Your task to perform on an android device: open app "ZOOM Cloud Meetings" (install if not already installed), go to login, and select forgot password Image 0: 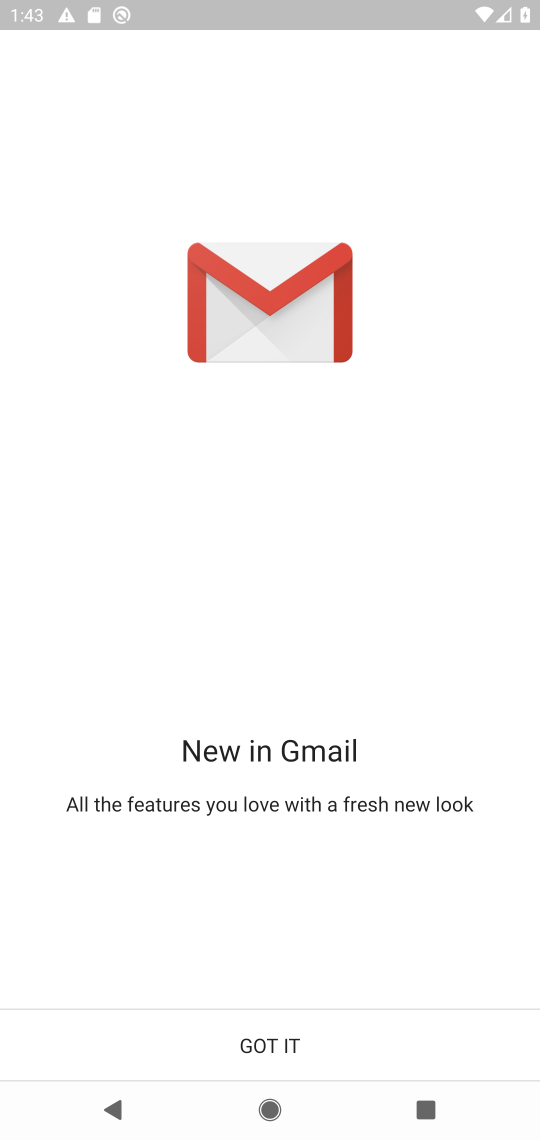
Step 0: press home button
Your task to perform on an android device: open app "ZOOM Cloud Meetings" (install if not already installed), go to login, and select forgot password Image 1: 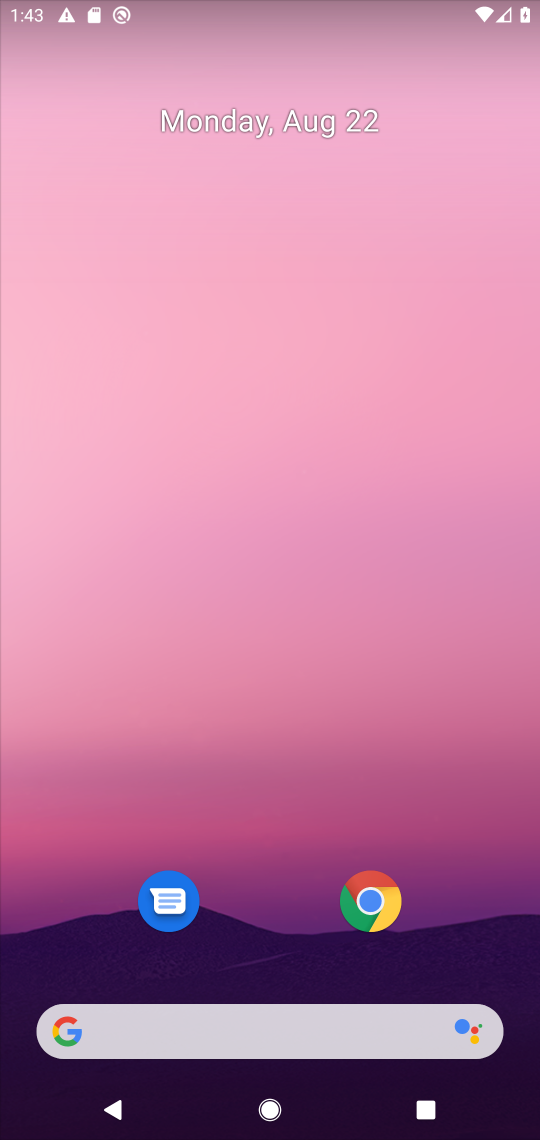
Step 1: drag from (461, 568) to (444, 173)
Your task to perform on an android device: open app "ZOOM Cloud Meetings" (install if not already installed), go to login, and select forgot password Image 2: 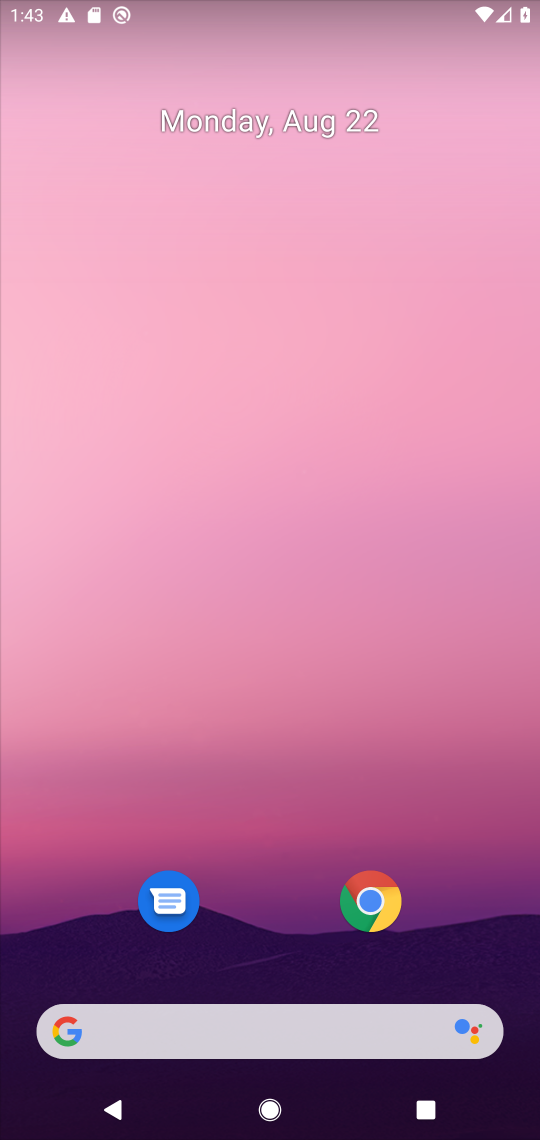
Step 2: drag from (512, 974) to (475, 70)
Your task to perform on an android device: open app "ZOOM Cloud Meetings" (install if not already installed), go to login, and select forgot password Image 3: 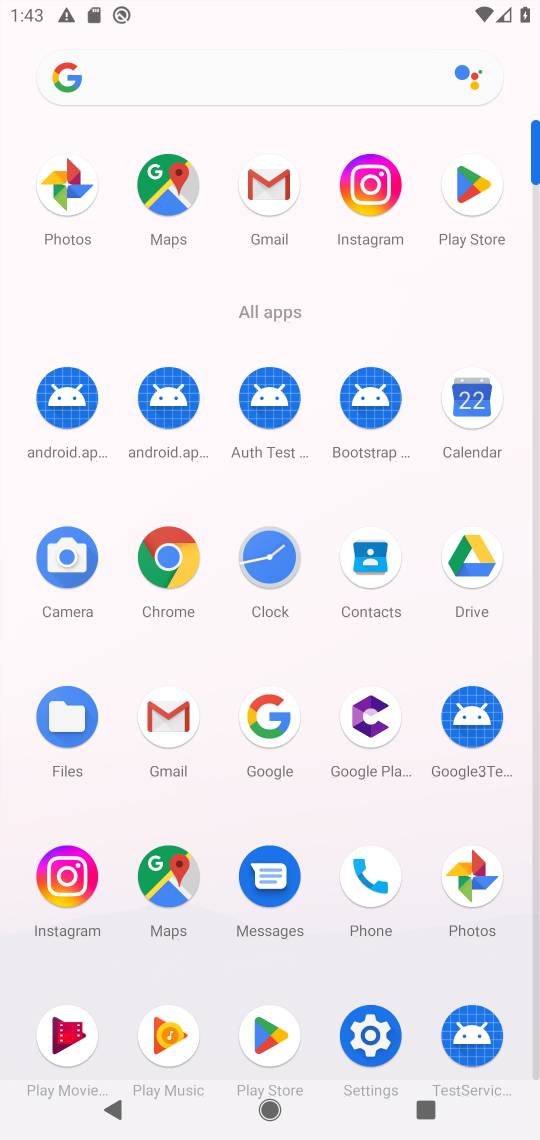
Step 3: click (275, 1028)
Your task to perform on an android device: open app "ZOOM Cloud Meetings" (install if not already installed), go to login, and select forgot password Image 4: 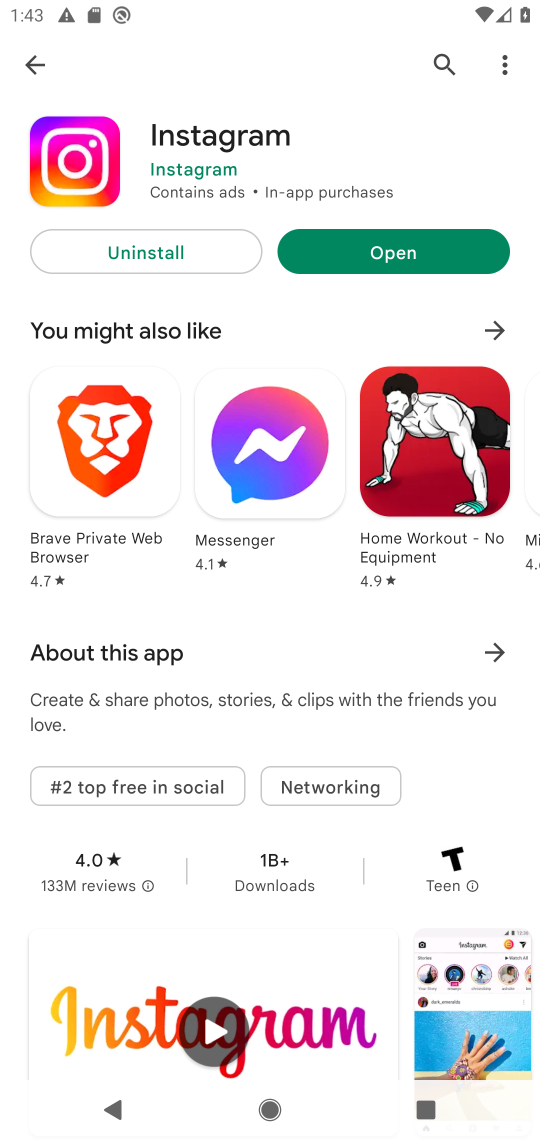
Step 4: click (437, 67)
Your task to perform on an android device: open app "ZOOM Cloud Meetings" (install if not already installed), go to login, and select forgot password Image 5: 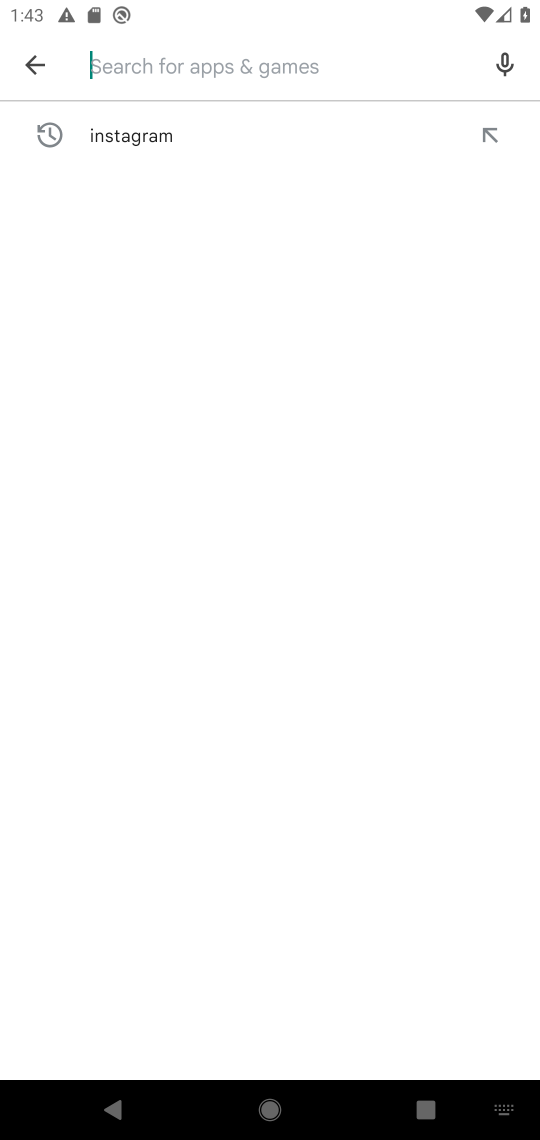
Step 5: type "ZOOM Cloud Meetings"
Your task to perform on an android device: open app "ZOOM Cloud Meetings" (install if not already installed), go to login, and select forgot password Image 6: 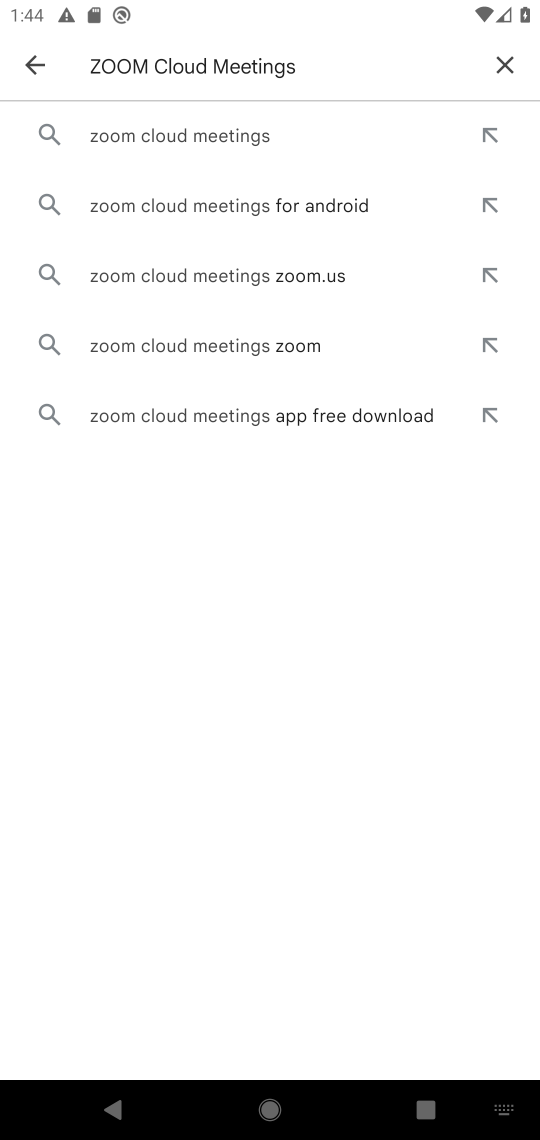
Step 6: click (172, 128)
Your task to perform on an android device: open app "ZOOM Cloud Meetings" (install if not already installed), go to login, and select forgot password Image 7: 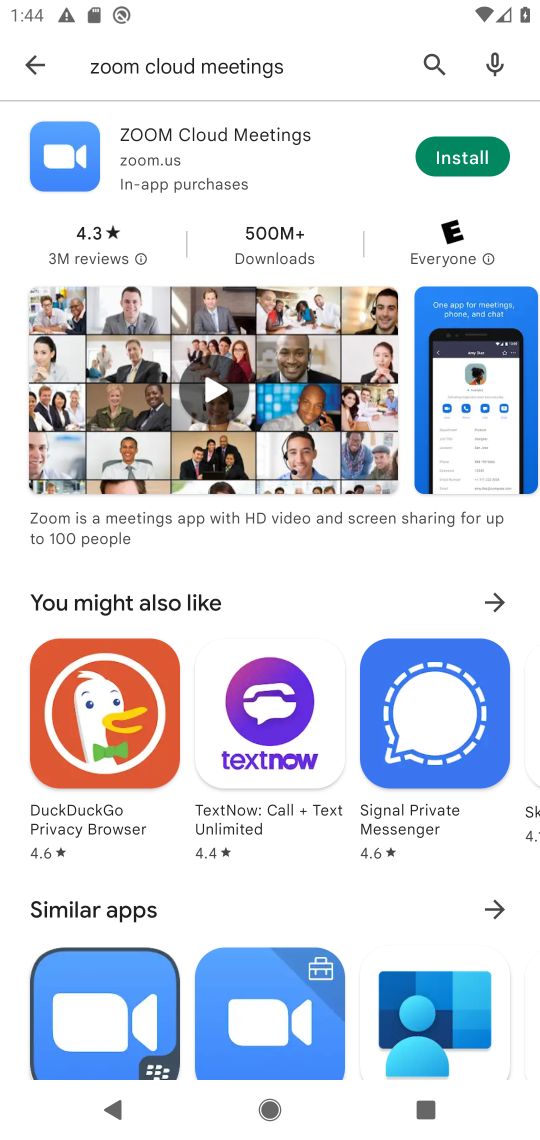
Step 7: click (144, 147)
Your task to perform on an android device: open app "ZOOM Cloud Meetings" (install if not already installed), go to login, and select forgot password Image 8: 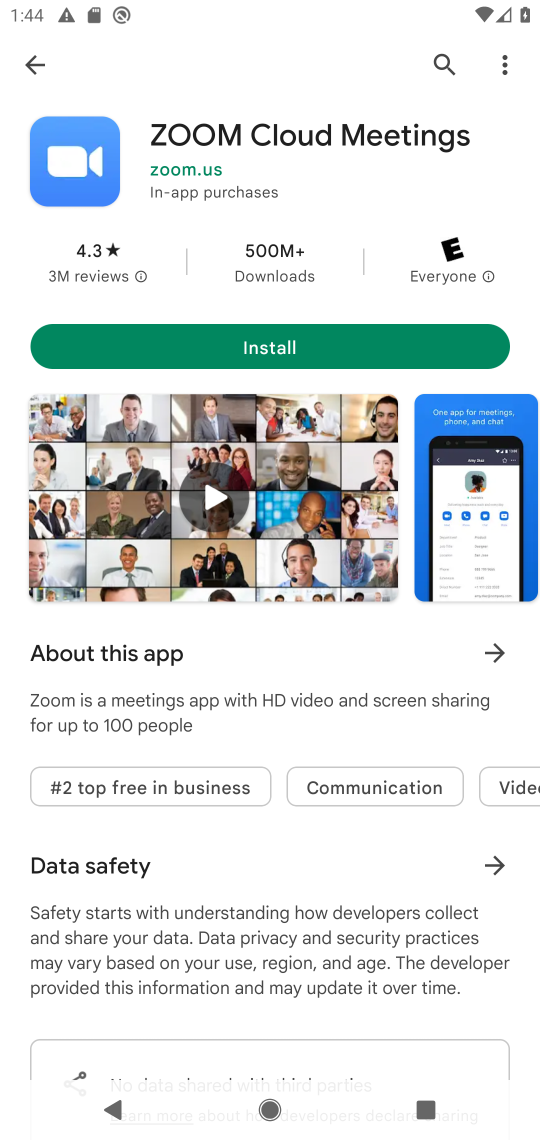
Step 8: click (266, 361)
Your task to perform on an android device: open app "ZOOM Cloud Meetings" (install if not already installed), go to login, and select forgot password Image 9: 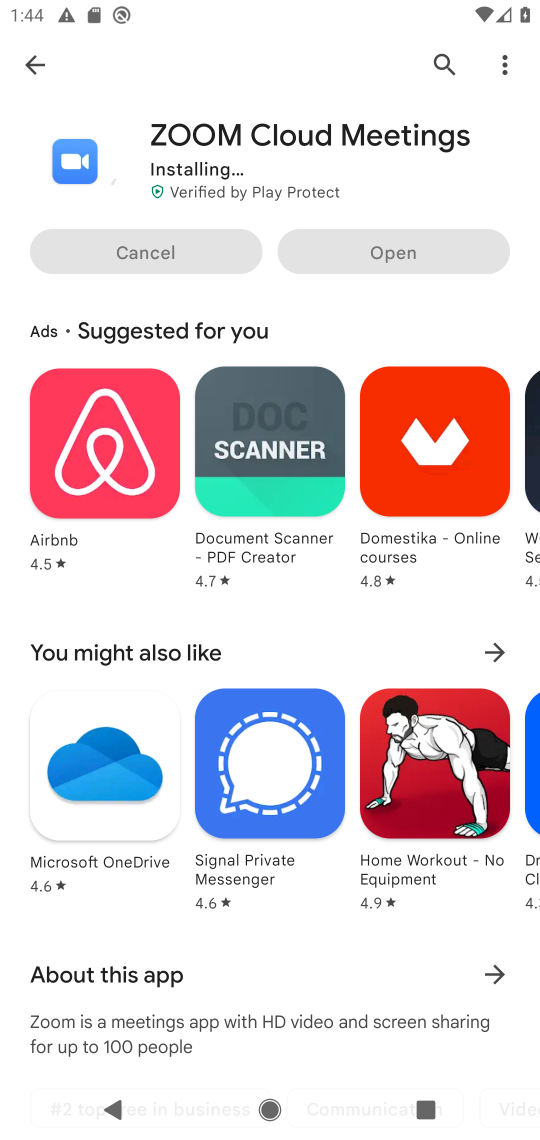
Step 9: click (275, 270)
Your task to perform on an android device: open app "ZOOM Cloud Meetings" (install if not already installed), go to login, and select forgot password Image 10: 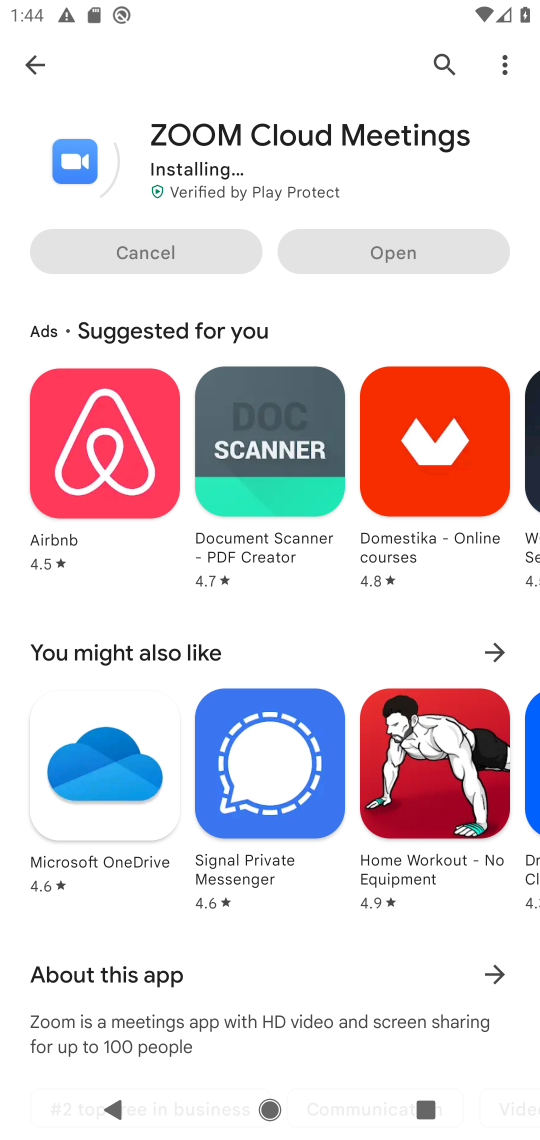
Step 10: drag from (264, 179) to (264, 275)
Your task to perform on an android device: open app "ZOOM Cloud Meetings" (install if not already installed), go to login, and select forgot password Image 11: 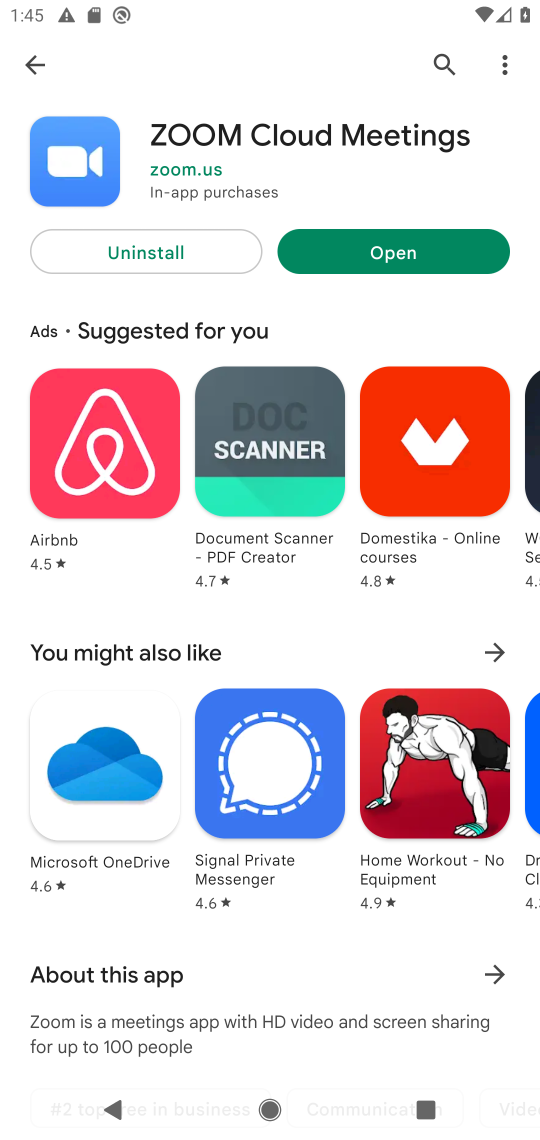
Step 11: click (383, 258)
Your task to perform on an android device: open app "ZOOM Cloud Meetings" (install if not already installed), go to login, and select forgot password Image 12: 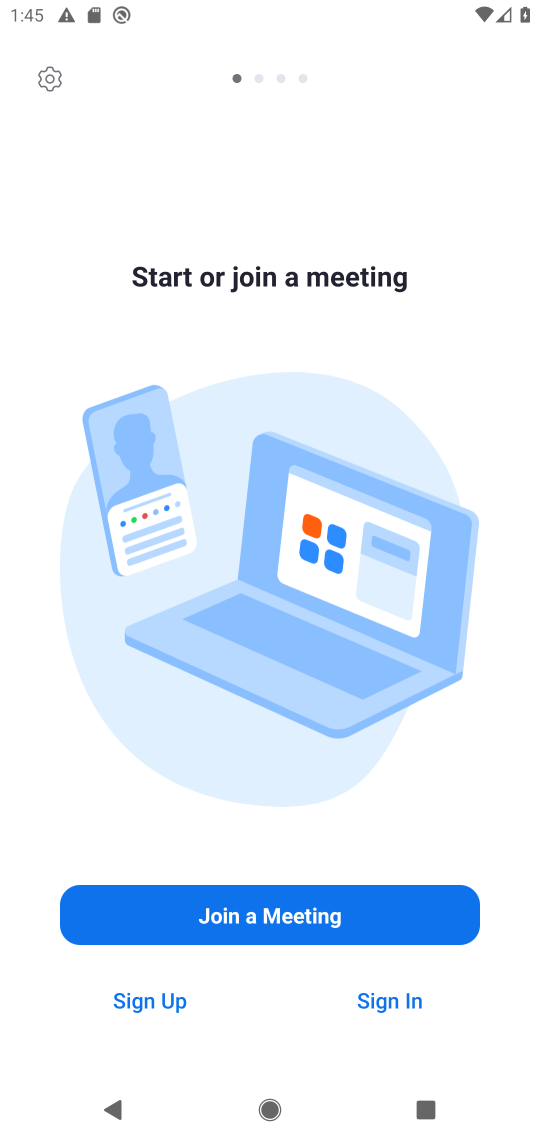
Step 12: click (400, 1010)
Your task to perform on an android device: open app "ZOOM Cloud Meetings" (install if not already installed), go to login, and select forgot password Image 13: 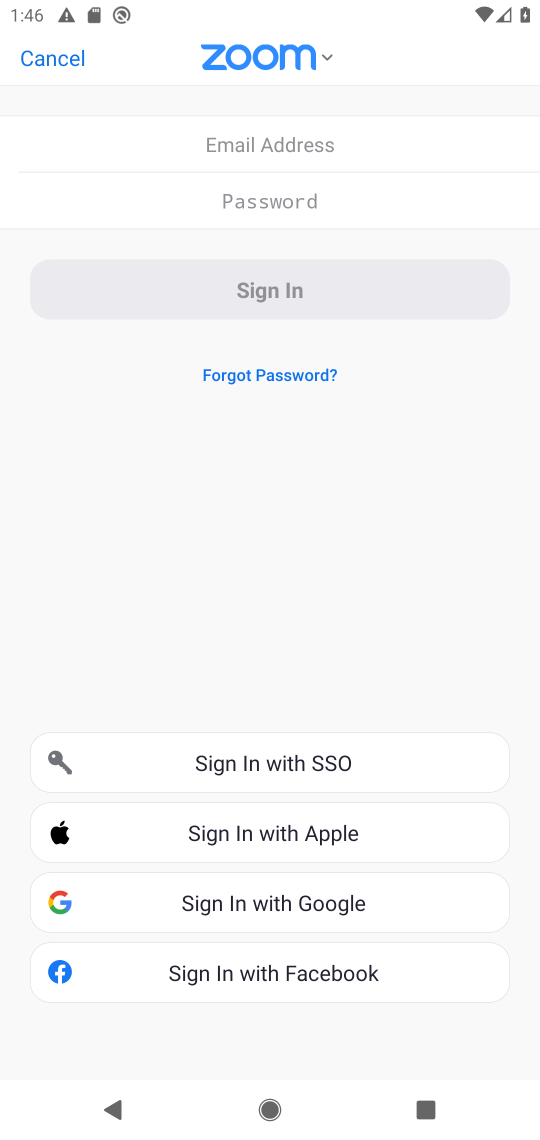
Step 13: click (265, 369)
Your task to perform on an android device: open app "ZOOM Cloud Meetings" (install if not already installed), go to login, and select forgot password Image 14: 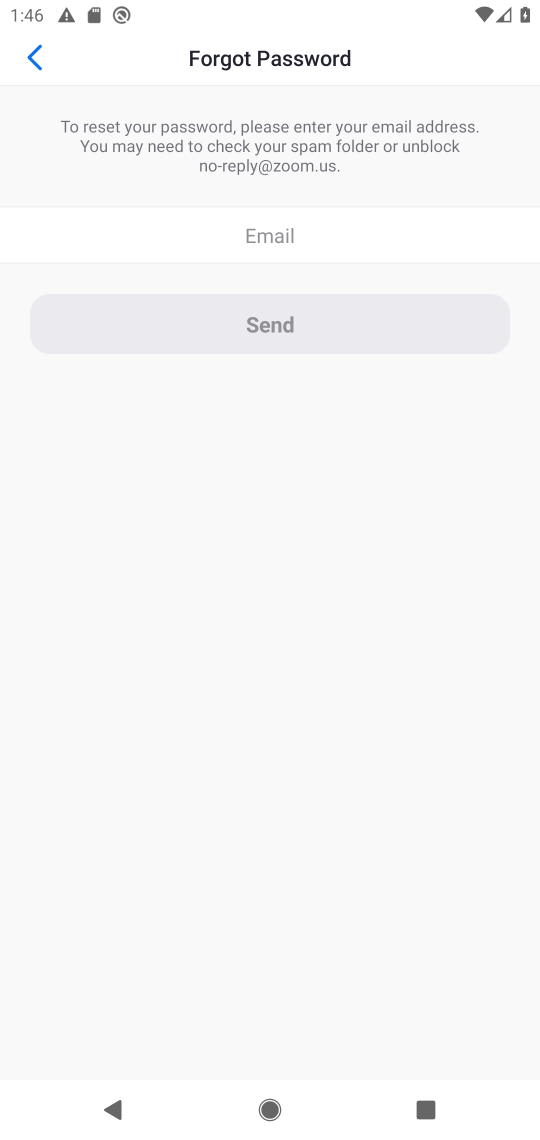
Step 14: task complete